Your task to perform on an android device: Go to Wikipedia Image 0: 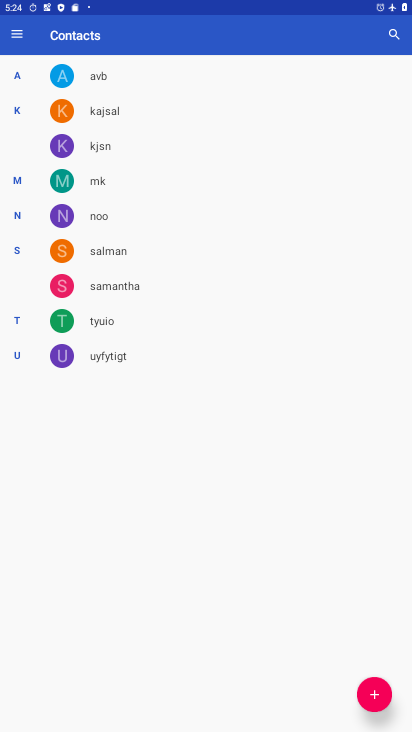
Step 0: click (0, 0)
Your task to perform on an android device: Go to Wikipedia Image 1: 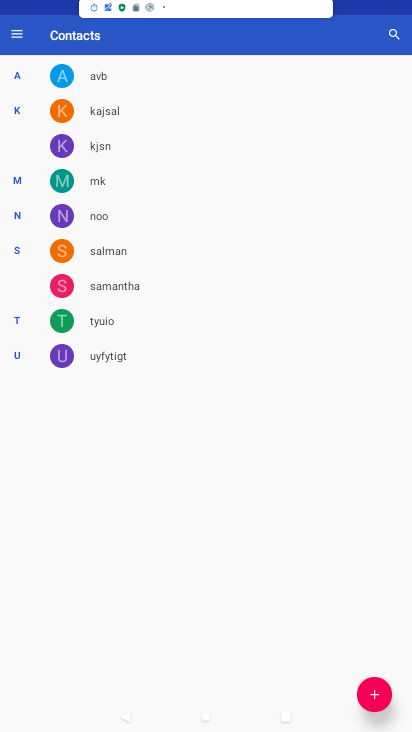
Step 1: press home button
Your task to perform on an android device: Go to Wikipedia Image 2: 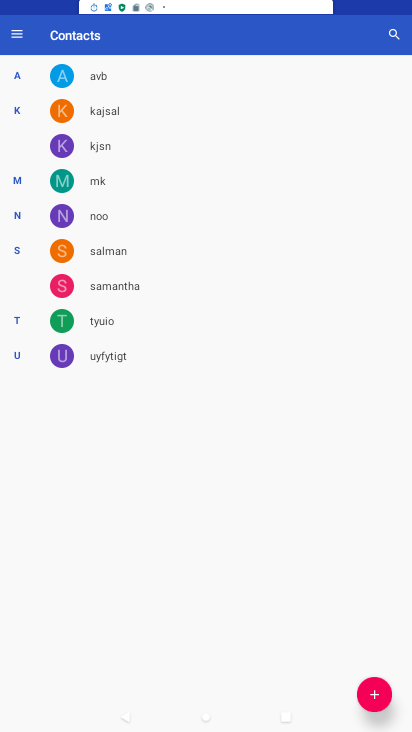
Step 2: drag from (0, 0) to (403, 496)
Your task to perform on an android device: Go to Wikipedia Image 3: 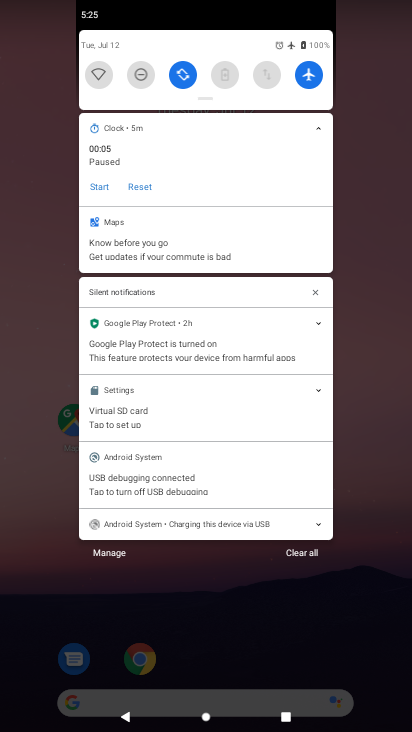
Step 3: click (222, 612)
Your task to perform on an android device: Go to Wikipedia Image 4: 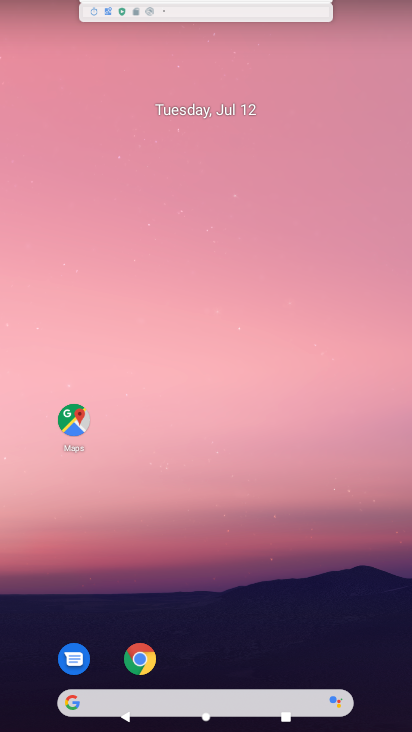
Step 4: click (222, 612)
Your task to perform on an android device: Go to Wikipedia Image 5: 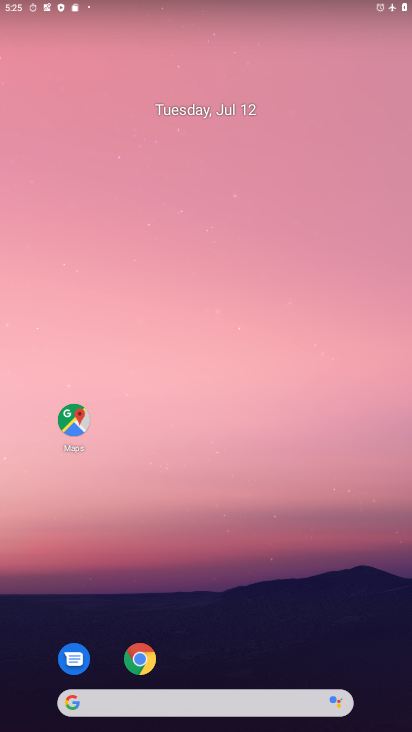
Step 5: drag from (214, 419) to (255, 175)
Your task to perform on an android device: Go to Wikipedia Image 6: 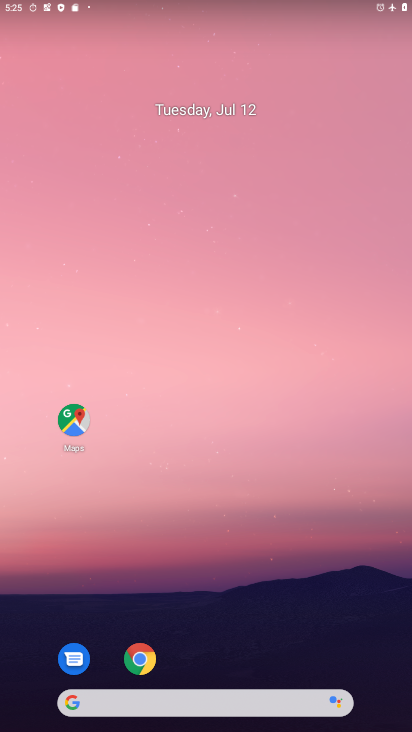
Step 6: click (255, 175)
Your task to perform on an android device: Go to Wikipedia Image 7: 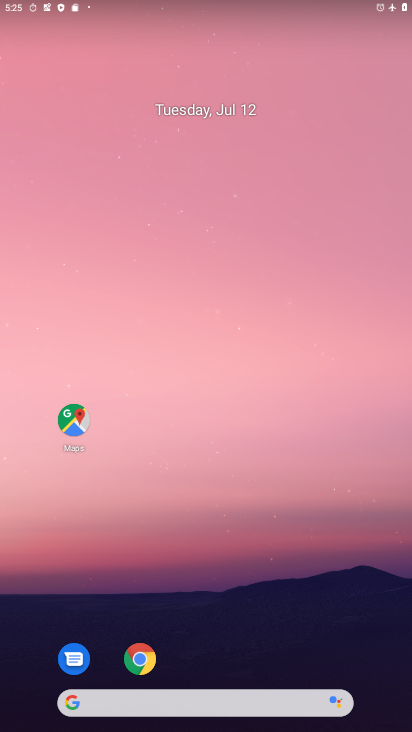
Step 7: click (142, 654)
Your task to perform on an android device: Go to Wikipedia Image 8: 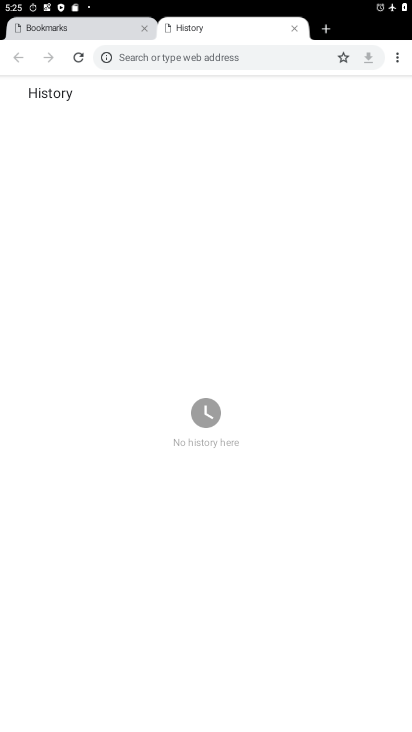
Step 8: click (165, 51)
Your task to perform on an android device: Go to Wikipedia Image 9: 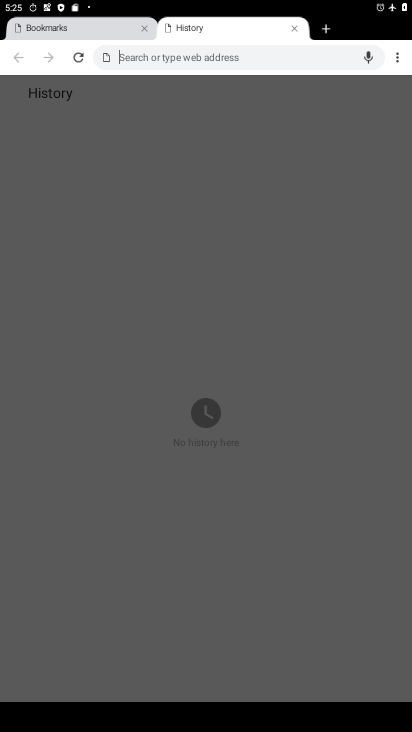
Step 9: type "wikipedia"
Your task to perform on an android device: Go to Wikipedia Image 10: 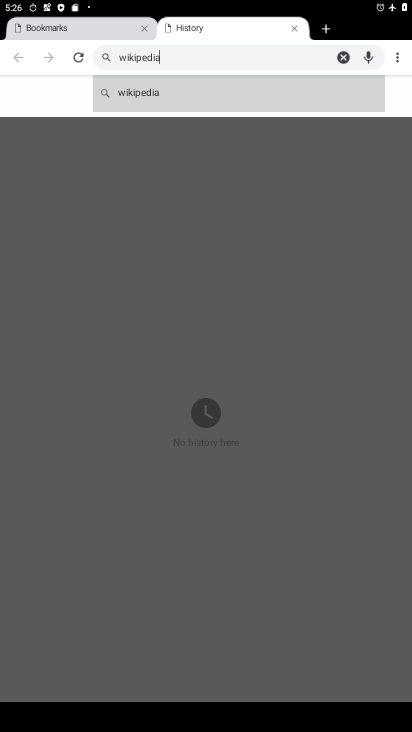
Step 10: press home button
Your task to perform on an android device: Go to Wikipedia Image 11: 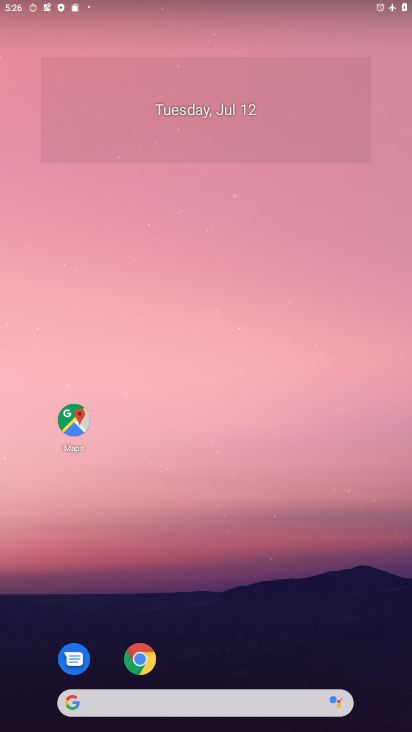
Step 11: click (141, 657)
Your task to perform on an android device: Go to Wikipedia Image 12: 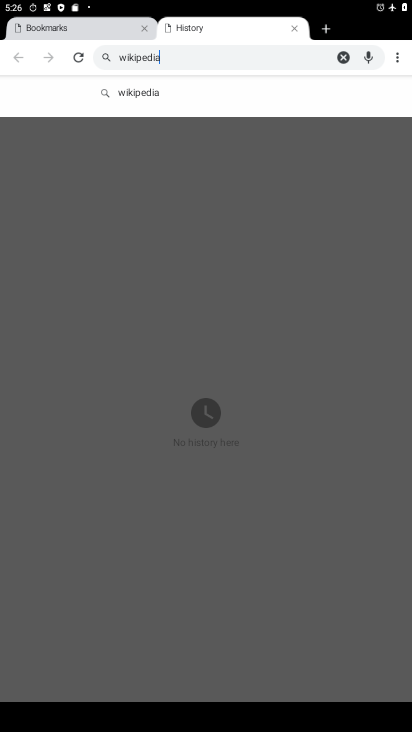
Step 12: task complete